Your task to perform on an android device: add a label to a message in the gmail app Image 0: 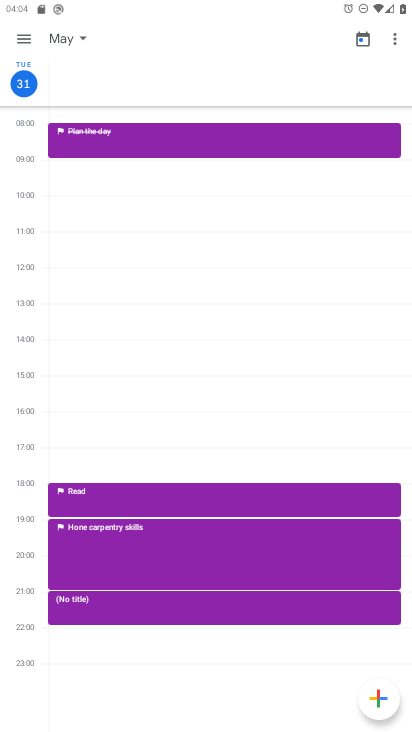
Step 0: press home button
Your task to perform on an android device: add a label to a message in the gmail app Image 1: 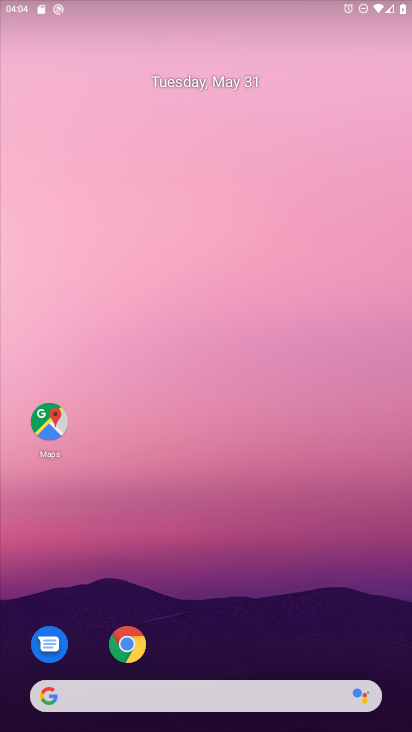
Step 1: drag from (321, 597) to (258, 46)
Your task to perform on an android device: add a label to a message in the gmail app Image 2: 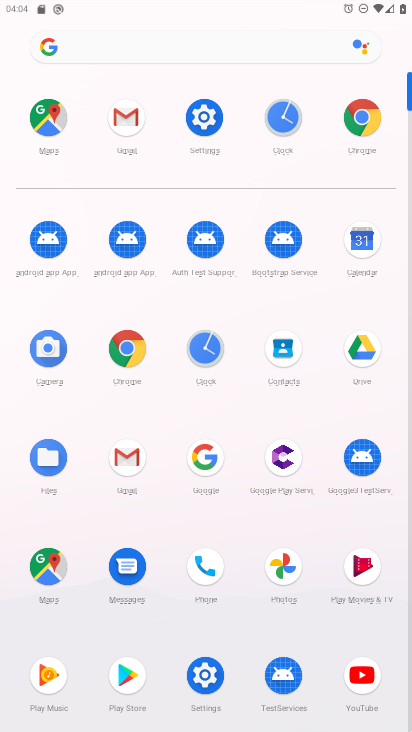
Step 2: click (121, 115)
Your task to perform on an android device: add a label to a message in the gmail app Image 3: 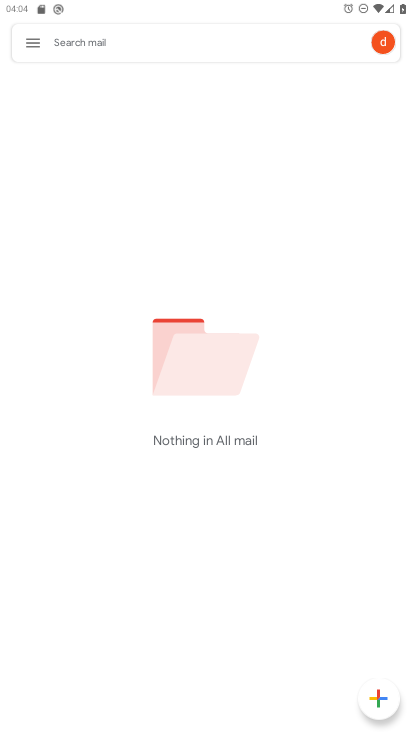
Step 3: click (33, 43)
Your task to perform on an android device: add a label to a message in the gmail app Image 4: 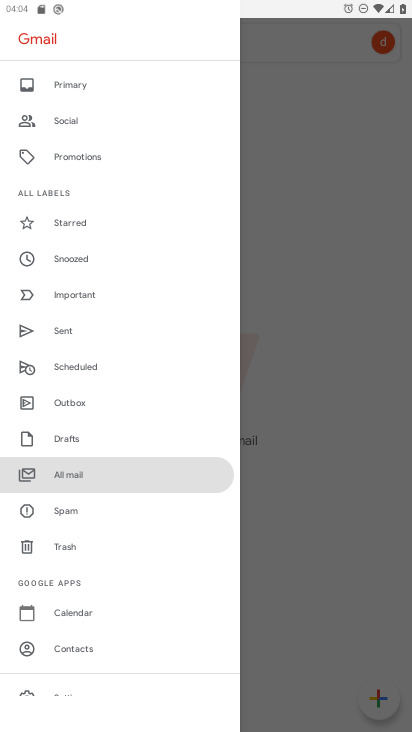
Step 4: click (128, 587)
Your task to perform on an android device: add a label to a message in the gmail app Image 5: 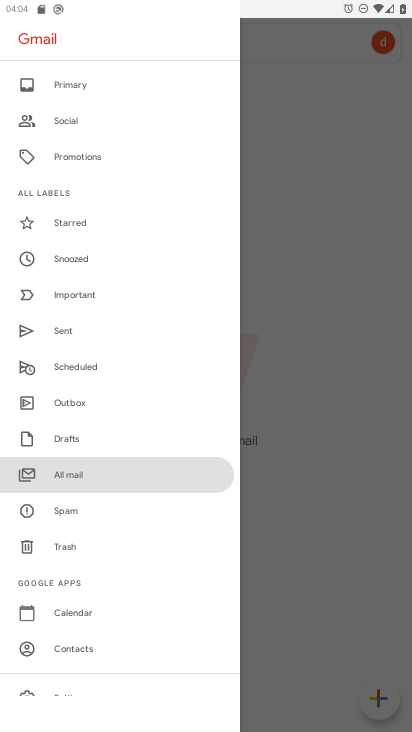
Step 5: click (70, 482)
Your task to perform on an android device: add a label to a message in the gmail app Image 6: 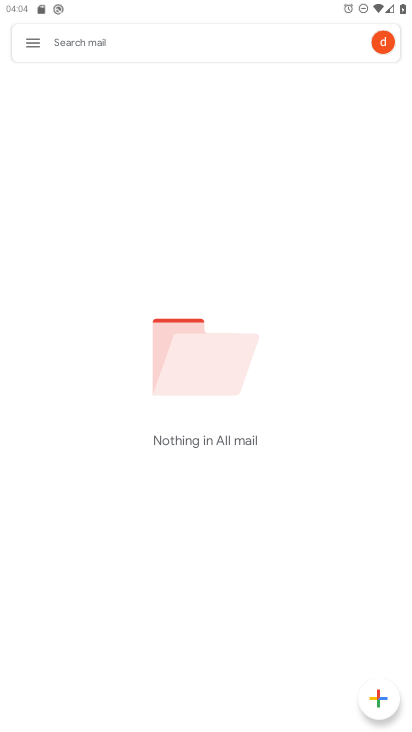
Step 6: task complete